Your task to perform on an android device: snooze an email in the gmail app Image 0: 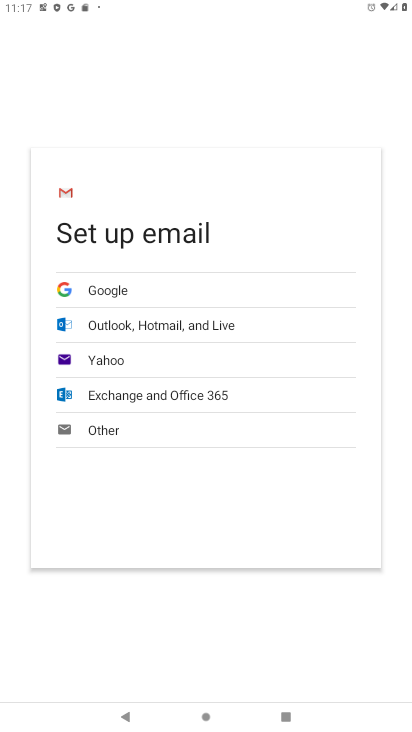
Step 0: press home button
Your task to perform on an android device: snooze an email in the gmail app Image 1: 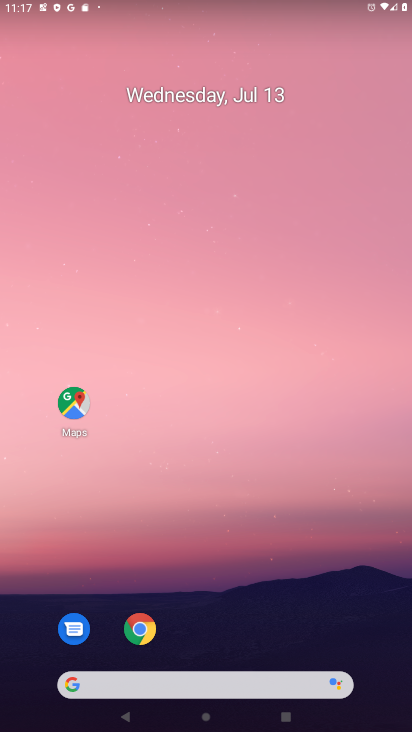
Step 1: drag from (271, 633) to (218, 80)
Your task to perform on an android device: snooze an email in the gmail app Image 2: 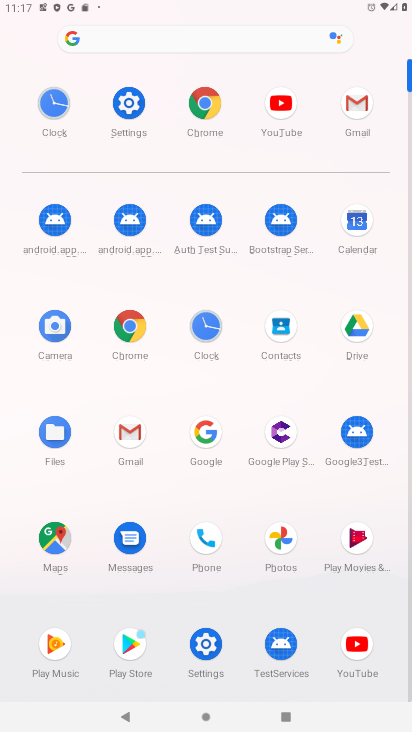
Step 2: click (341, 109)
Your task to perform on an android device: snooze an email in the gmail app Image 3: 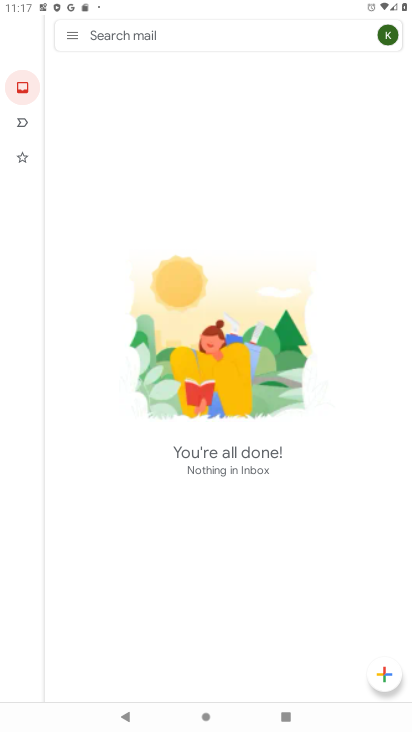
Step 3: click (72, 48)
Your task to perform on an android device: snooze an email in the gmail app Image 4: 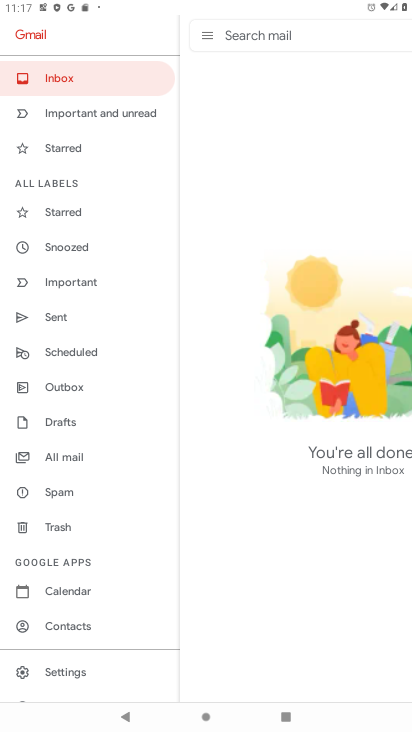
Step 4: click (77, 242)
Your task to perform on an android device: snooze an email in the gmail app Image 5: 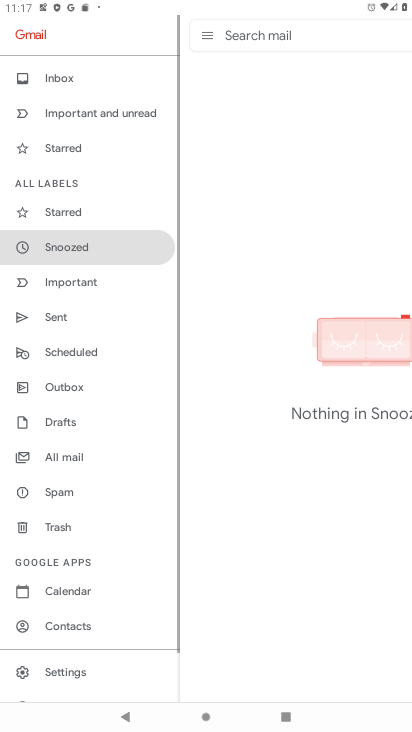
Step 5: task complete